Your task to perform on an android device: Open the calendar and show me this week's events? Image 0: 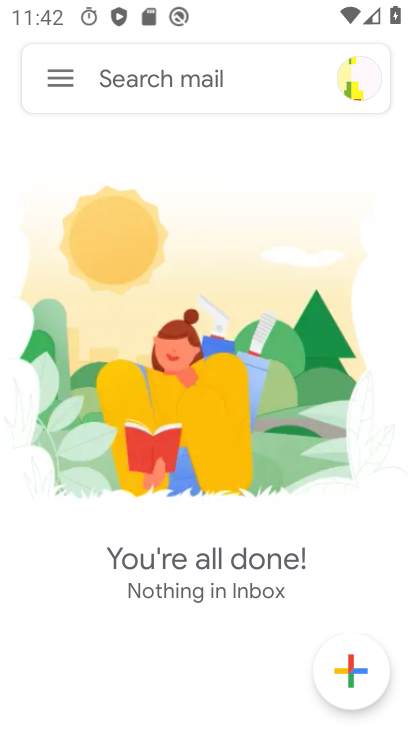
Step 0: click (63, 69)
Your task to perform on an android device: Open the calendar and show me this week's events? Image 1: 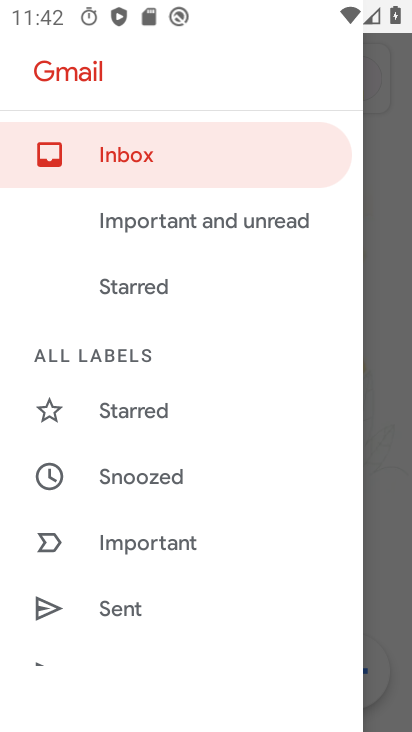
Step 1: click (385, 331)
Your task to perform on an android device: Open the calendar and show me this week's events? Image 2: 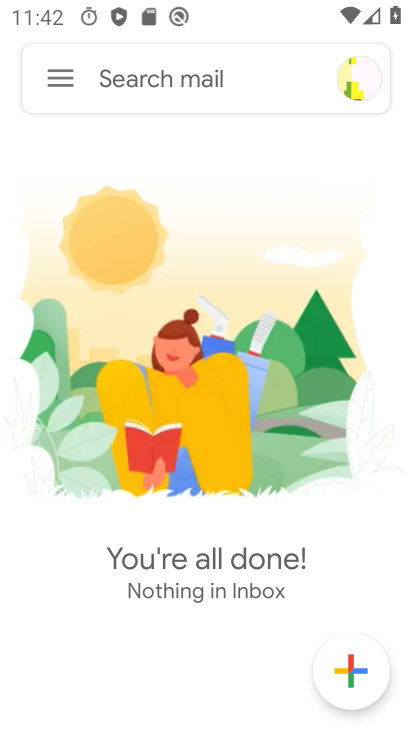
Step 2: click (72, 79)
Your task to perform on an android device: Open the calendar and show me this week's events? Image 3: 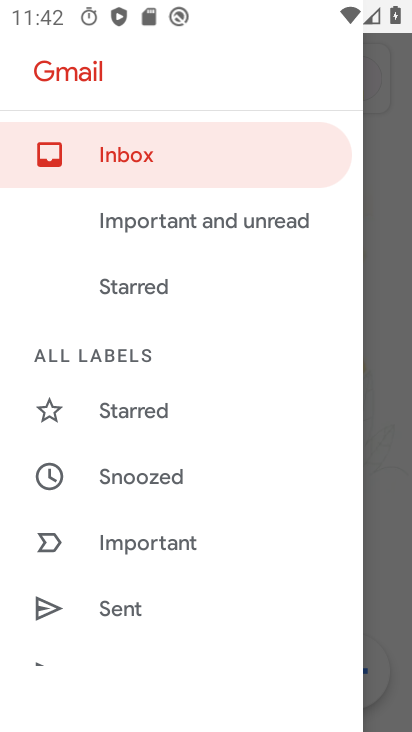
Step 3: drag from (271, 448) to (271, 367)
Your task to perform on an android device: Open the calendar and show me this week's events? Image 4: 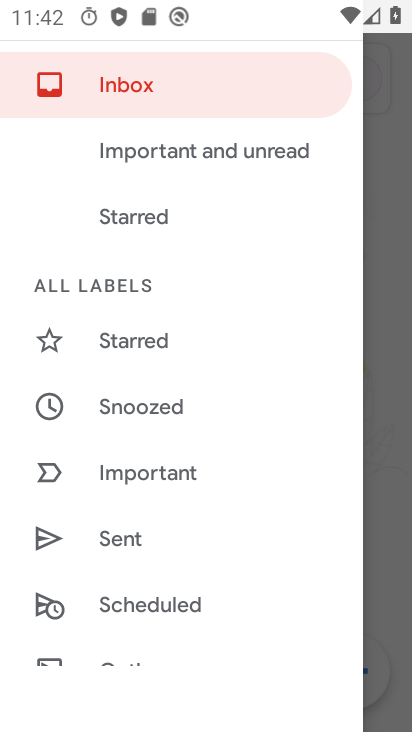
Step 4: drag from (254, 613) to (264, 304)
Your task to perform on an android device: Open the calendar and show me this week's events? Image 5: 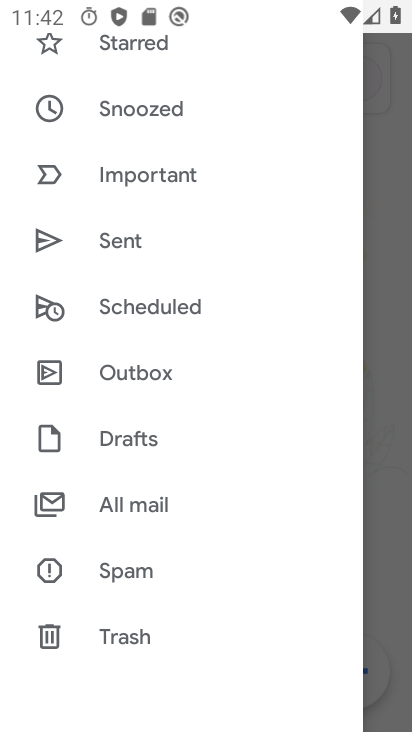
Step 5: click (282, 335)
Your task to perform on an android device: Open the calendar and show me this week's events? Image 6: 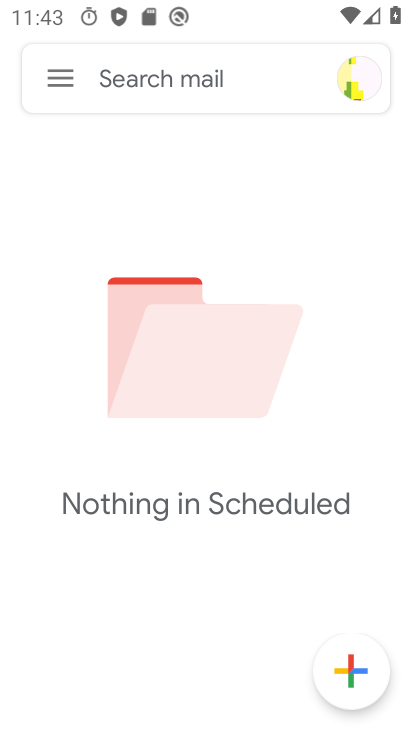
Step 6: press back button
Your task to perform on an android device: Open the calendar and show me this week's events? Image 7: 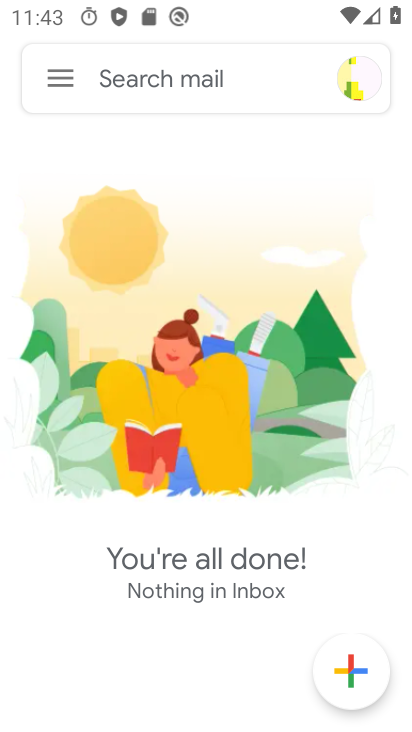
Step 7: click (65, 74)
Your task to perform on an android device: Open the calendar and show me this week's events? Image 8: 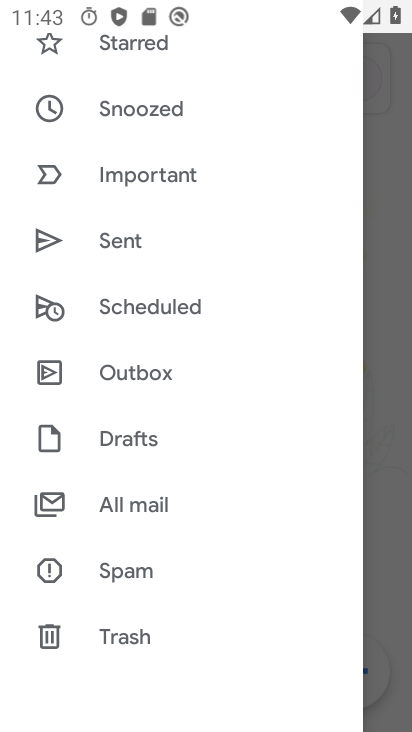
Step 8: drag from (258, 518) to (270, 309)
Your task to perform on an android device: Open the calendar and show me this week's events? Image 9: 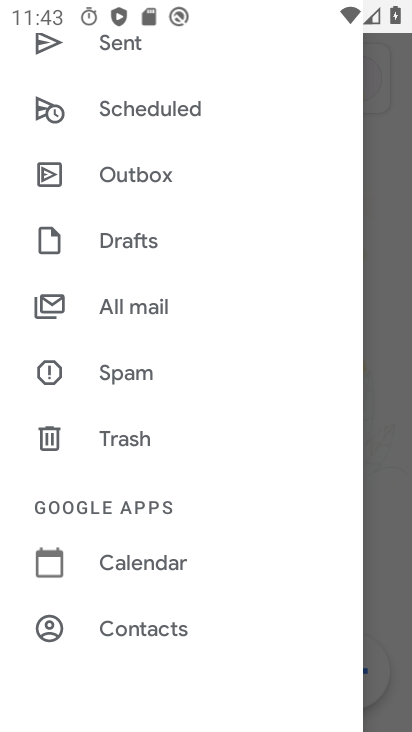
Step 9: press back button
Your task to perform on an android device: Open the calendar and show me this week's events? Image 10: 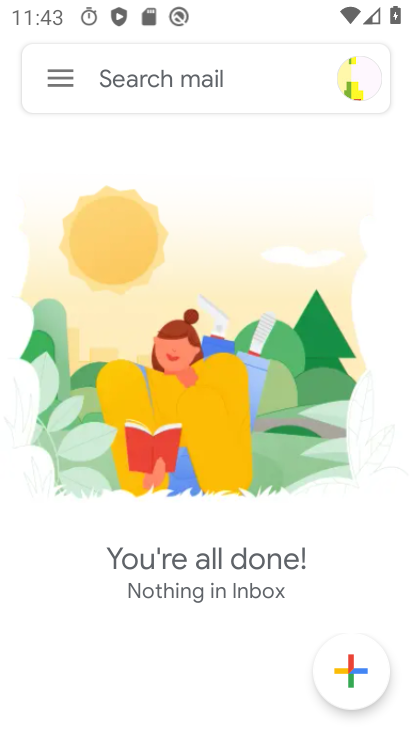
Step 10: press back button
Your task to perform on an android device: Open the calendar and show me this week's events? Image 11: 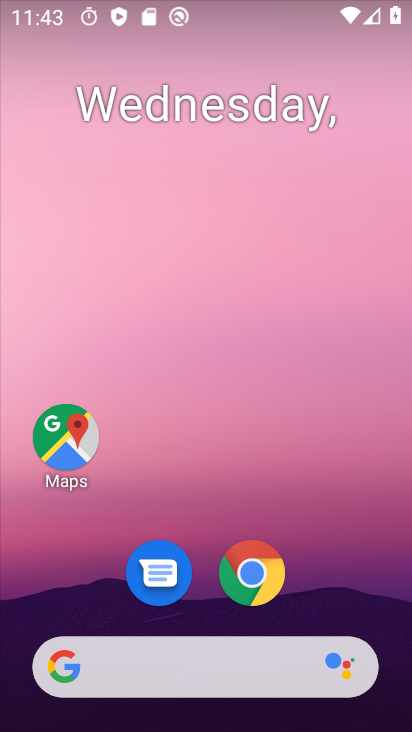
Step 11: click (355, 202)
Your task to perform on an android device: Open the calendar and show me this week's events? Image 12: 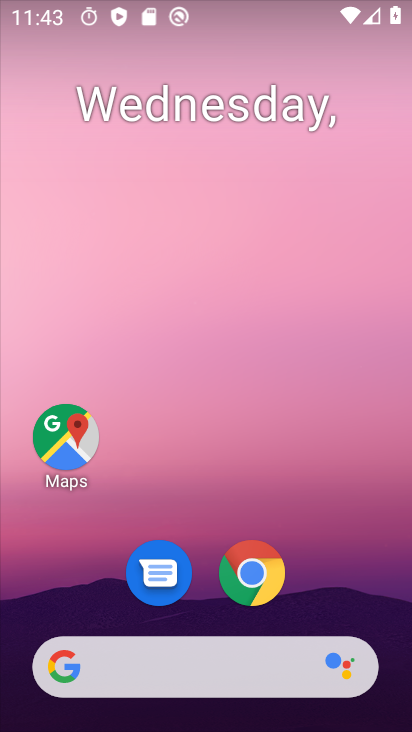
Step 12: drag from (390, 631) to (393, 246)
Your task to perform on an android device: Open the calendar and show me this week's events? Image 13: 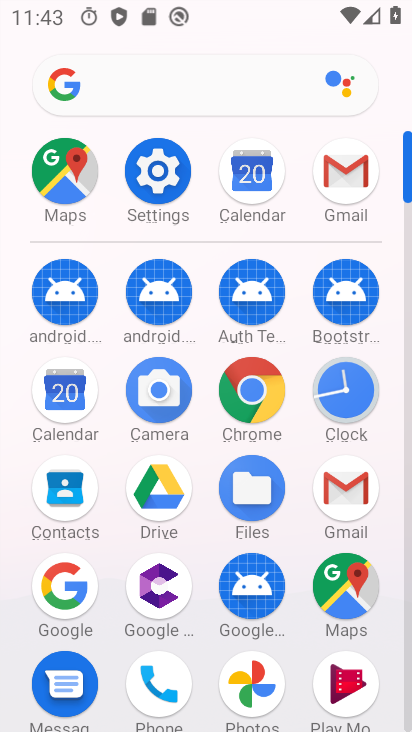
Step 13: click (72, 389)
Your task to perform on an android device: Open the calendar and show me this week's events? Image 14: 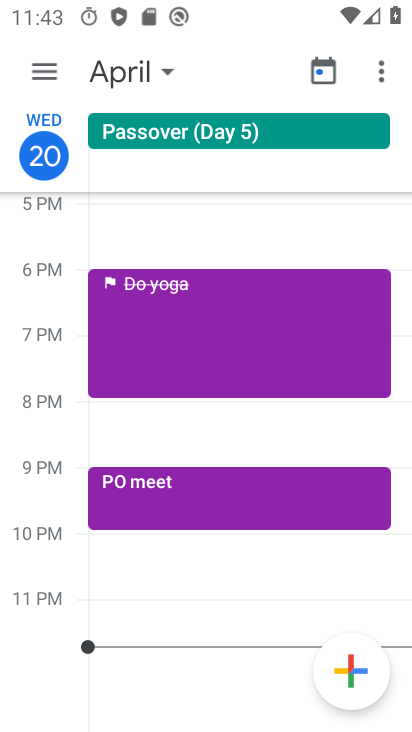
Step 14: click (157, 69)
Your task to perform on an android device: Open the calendar and show me this week's events? Image 15: 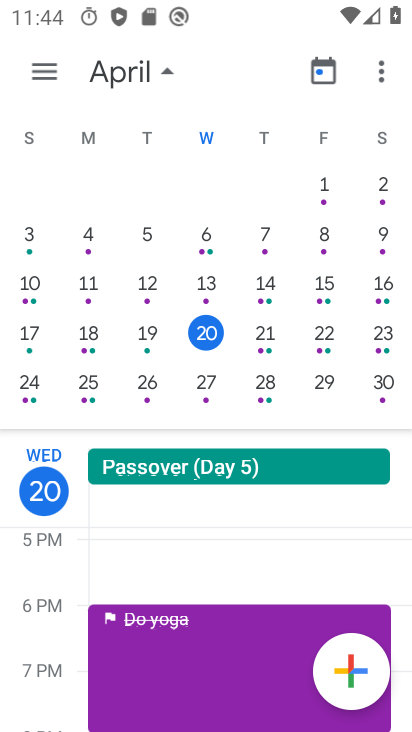
Step 15: click (47, 72)
Your task to perform on an android device: Open the calendar and show me this week's events? Image 16: 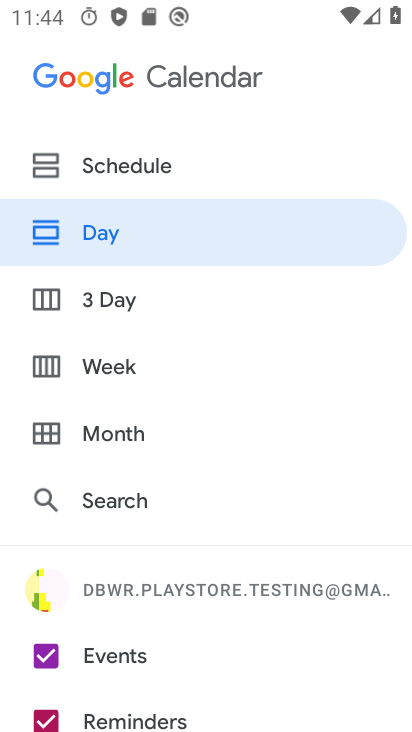
Step 16: click (89, 361)
Your task to perform on an android device: Open the calendar and show me this week's events? Image 17: 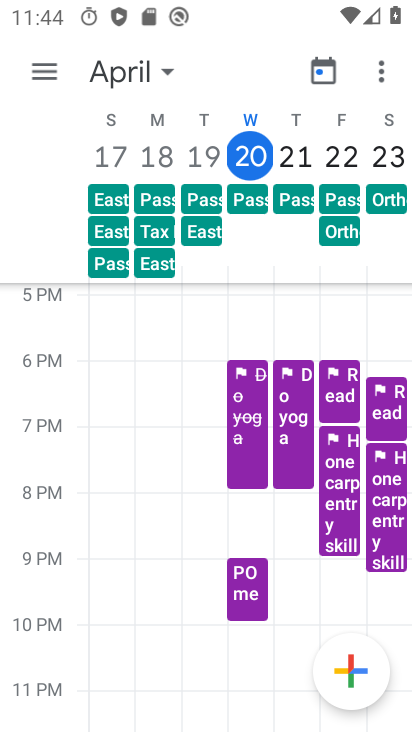
Step 17: task complete